Your task to perform on an android device: delete a single message in the gmail app Image 0: 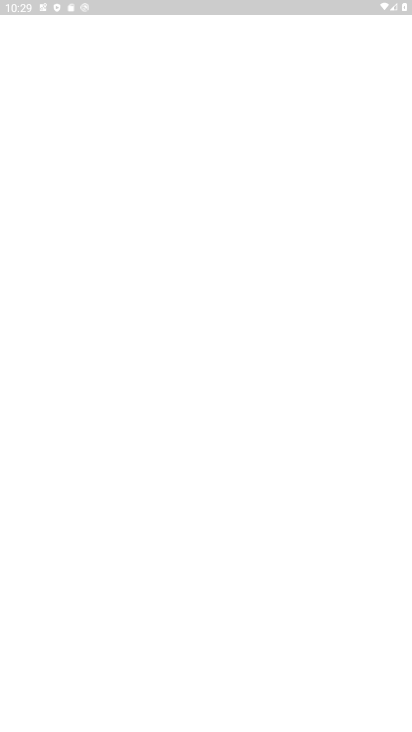
Step 0: press back button
Your task to perform on an android device: delete a single message in the gmail app Image 1: 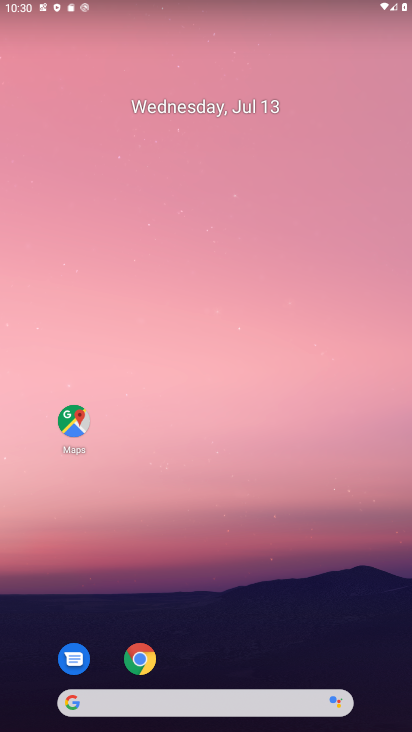
Step 1: drag from (256, 659) to (173, 273)
Your task to perform on an android device: delete a single message in the gmail app Image 2: 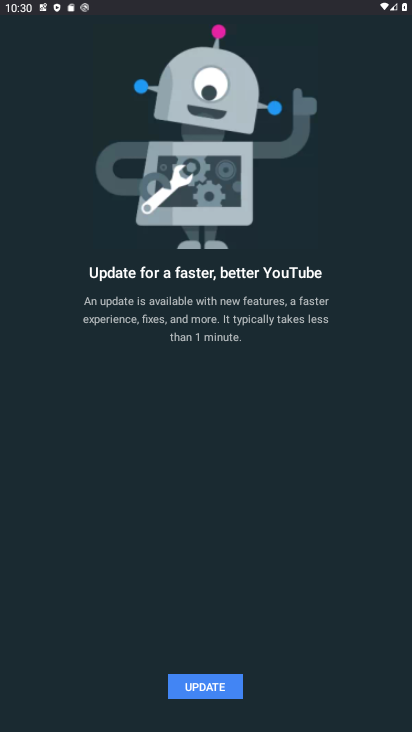
Step 2: press back button
Your task to perform on an android device: delete a single message in the gmail app Image 3: 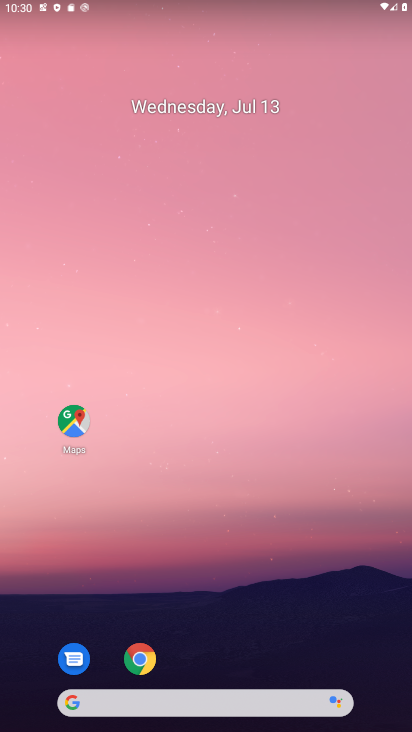
Step 3: drag from (170, 646) to (170, 134)
Your task to perform on an android device: delete a single message in the gmail app Image 4: 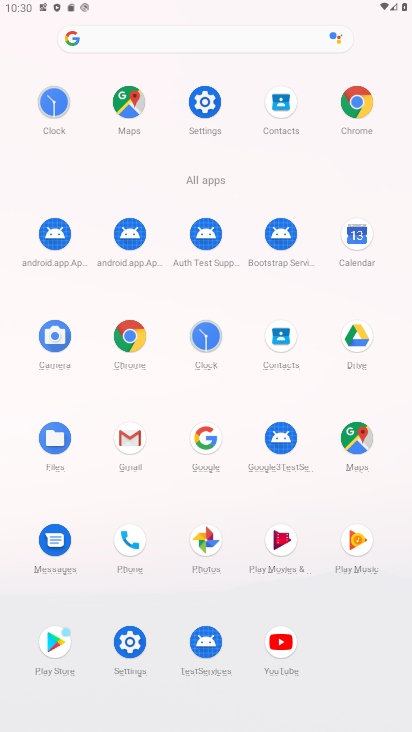
Step 4: click (138, 436)
Your task to perform on an android device: delete a single message in the gmail app Image 5: 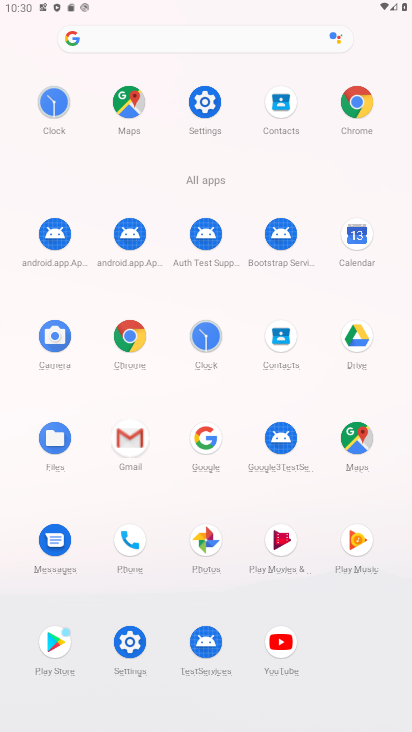
Step 5: click (141, 430)
Your task to perform on an android device: delete a single message in the gmail app Image 6: 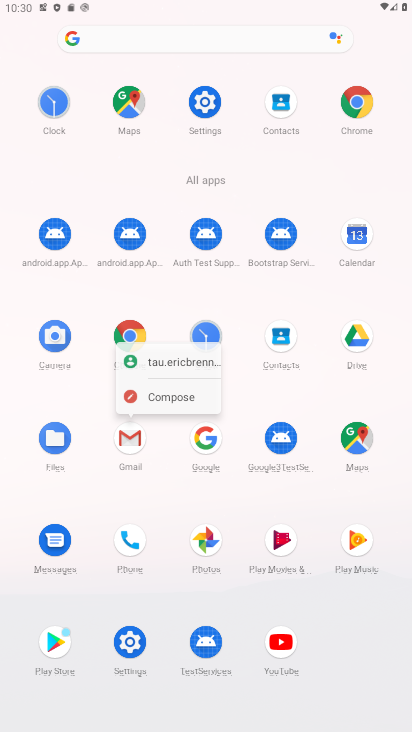
Step 6: click (148, 430)
Your task to perform on an android device: delete a single message in the gmail app Image 7: 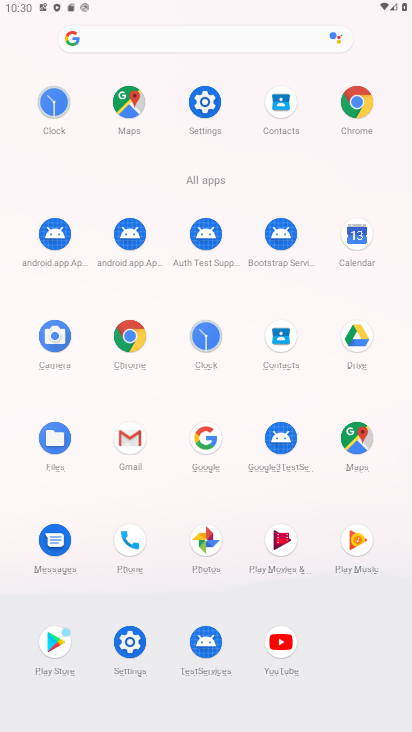
Step 7: click (152, 432)
Your task to perform on an android device: delete a single message in the gmail app Image 8: 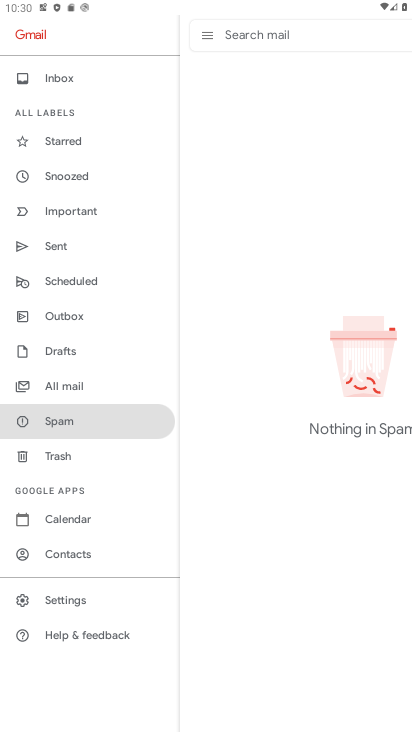
Step 8: click (78, 381)
Your task to perform on an android device: delete a single message in the gmail app Image 9: 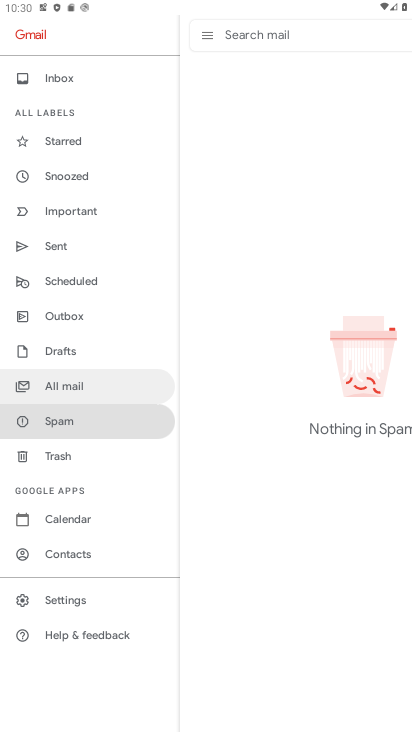
Step 9: click (78, 383)
Your task to perform on an android device: delete a single message in the gmail app Image 10: 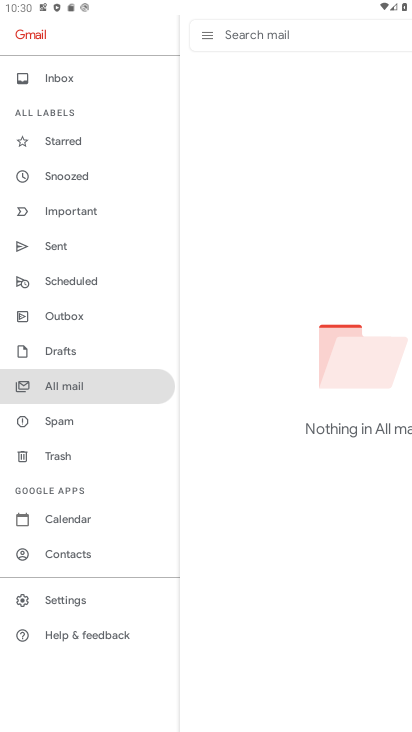
Step 10: task complete